Your task to perform on an android device: Open Amazon Image 0: 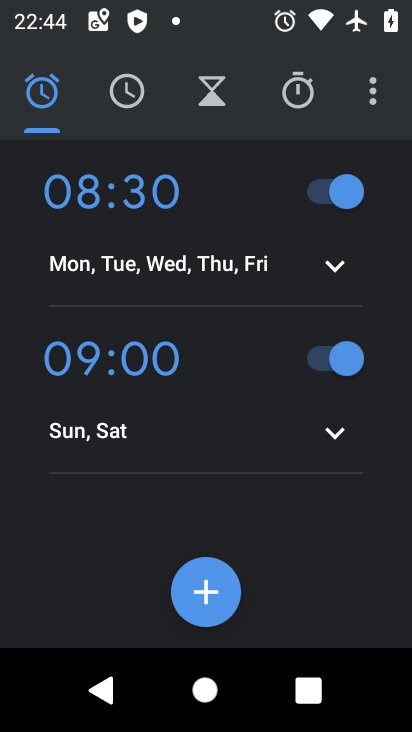
Step 0: press home button
Your task to perform on an android device: Open Amazon Image 1: 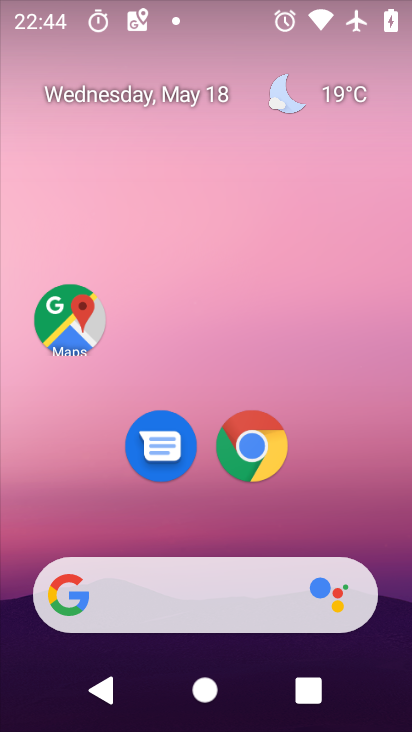
Step 1: click (264, 450)
Your task to perform on an android device: Open Amazon Image 2: 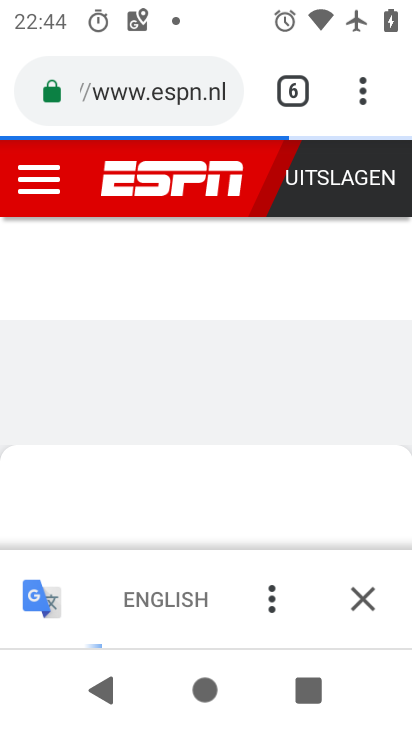
Step 2: drag from (360, 96) to (239, 181)
Your task to perform on an android device: Open Amazon Image 3: 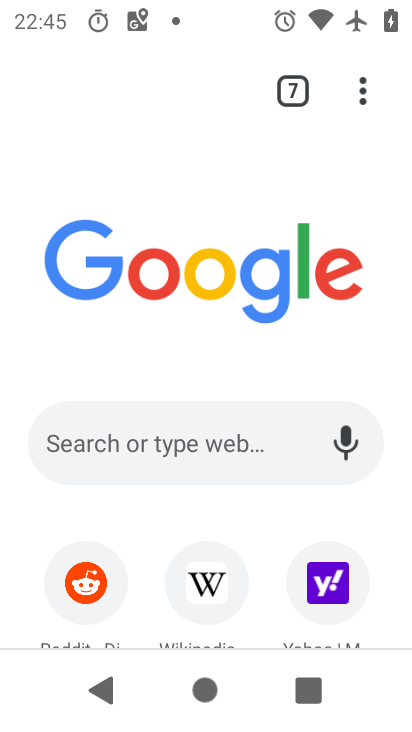
Step 3: drag from (158, 554) to (329, 95)
Your task to perform on an android device: Open Amazon Image 4: 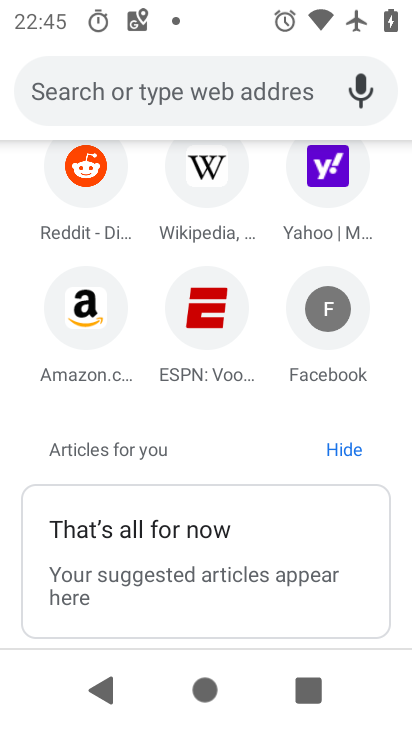
Step 4: click (94, 308)
Your task to perform on an android device: Open Amazon Image 5: 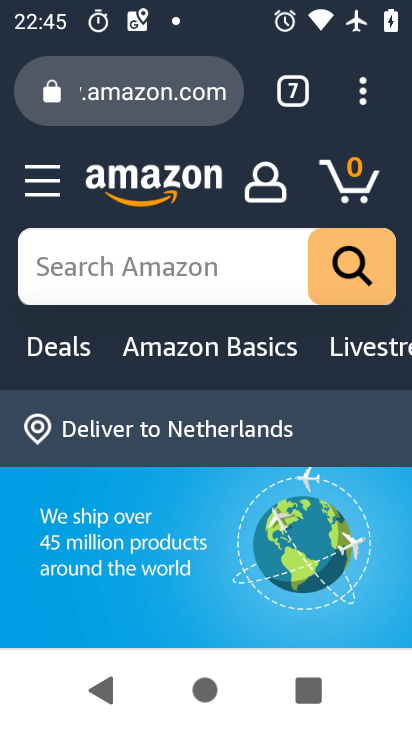
Step 5: task complete